Your task to perform on an android device: turn on location history Image 0: 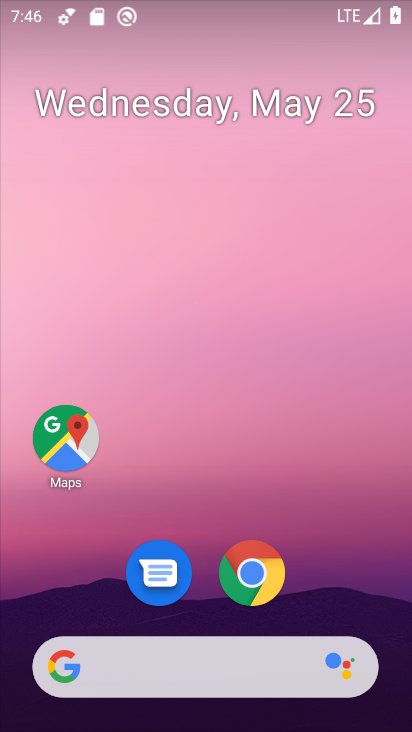
Step 0: drag from (397, 708) to (316, 329)
Your task to perform on an android device: turn on location history Image 1: 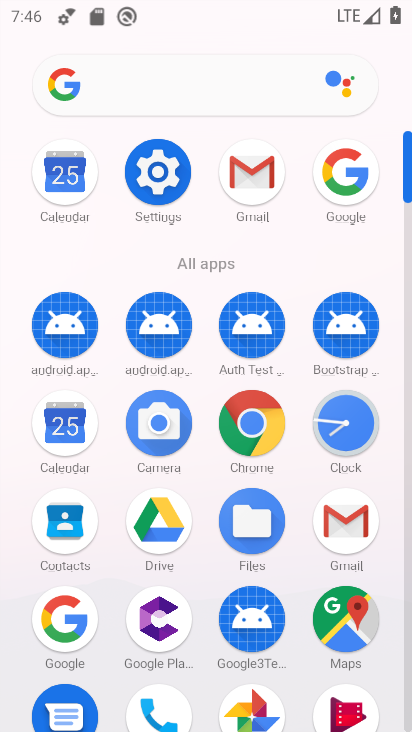
Step 1: click (136, 180)
Your task to perform on an android device: turn on location history Image 2: 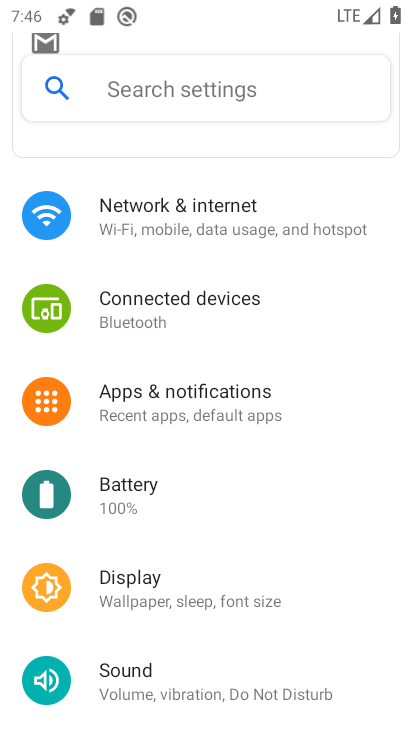
Step 2: drag from (305, 634) to (316, 252)
Your task to perform on an android device: turn on location history Image 3: 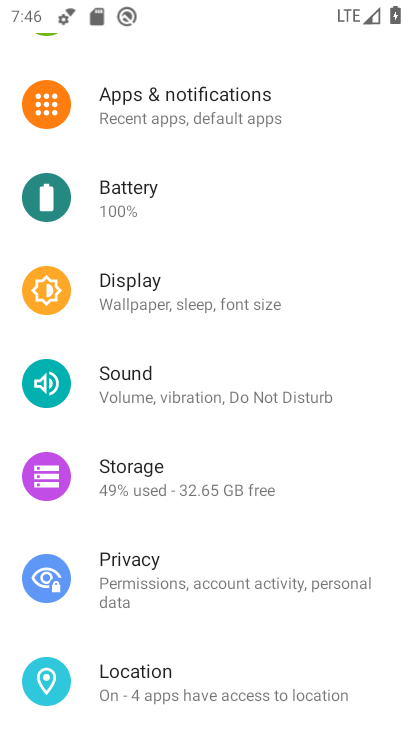
Step 3: click (118, 677)
Your task to perform on an android device: turn on location history Image 4: 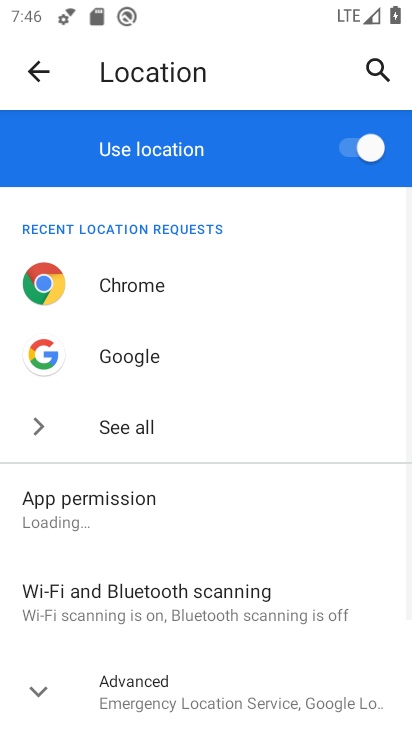
Step 4: drag from (274, 671) to (231, 390)
Your task to perform on an android device: turn on location history Image 5: 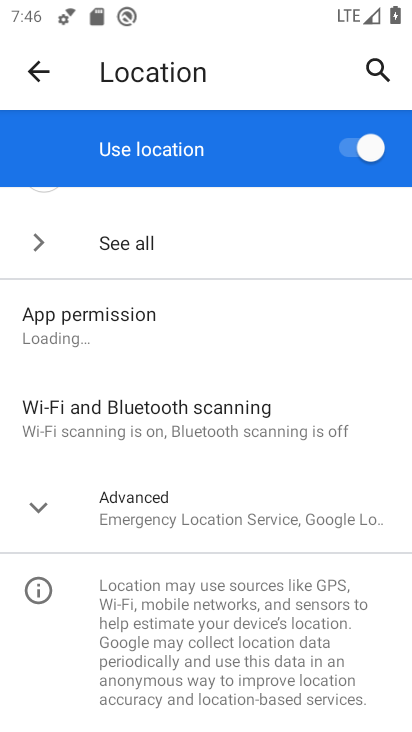
Step 5: click (40, 507)
Your task to perform on an android device: turn on location history Image 6: 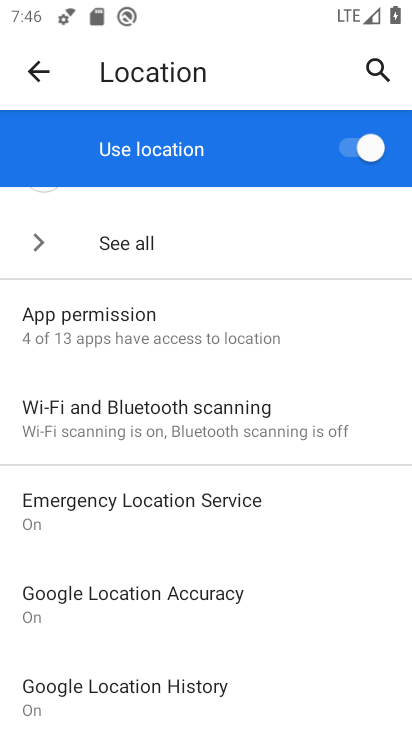
Step 6: click (46, 692)
Your task to perform on an android device: turn on location history Image 7: 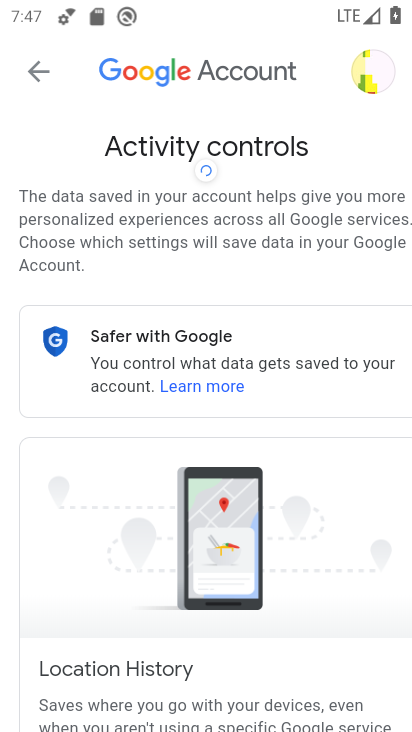
Step 7: task complete